Your task to perform on an android device: search for starred emails in the gmail app Image 0: 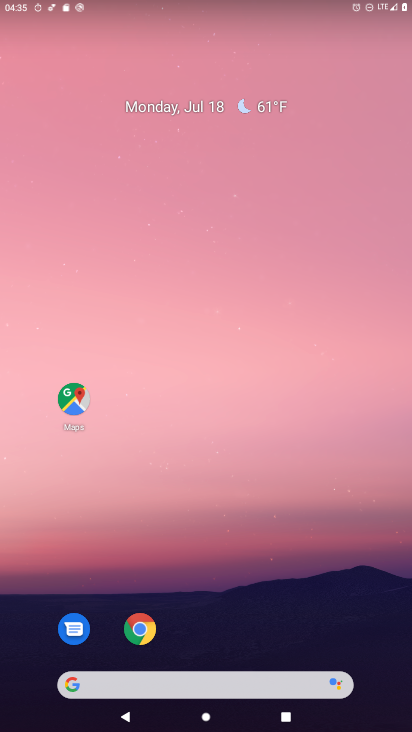
Step 0: press home button
Your task to perform on an android device: search for starred emails in the gmail app Image 1: 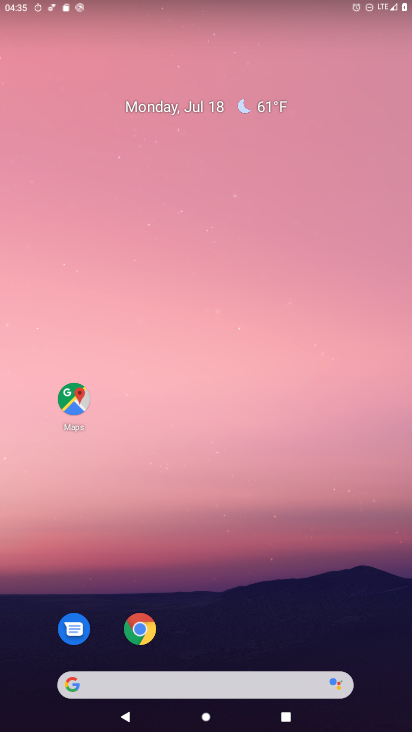
Step 1: drag from (194, 687) to (310, 175)
Your task to perform on an android device: search for starred emails in the gmail app Image 2: 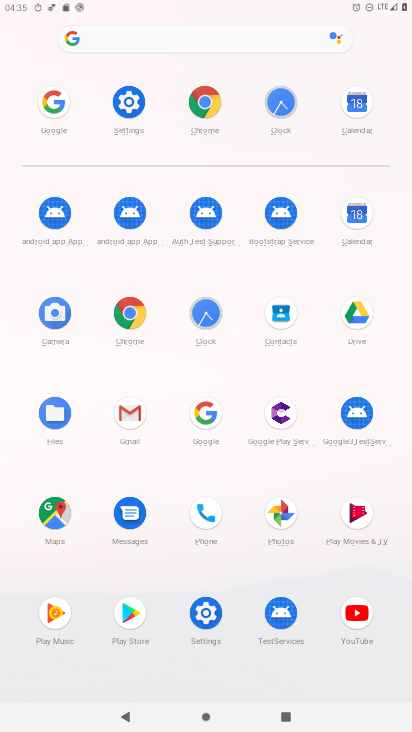
Step 2: click (129, 410)
Your task to perform on an android device: search for starred emails in the gmail app Image 3: 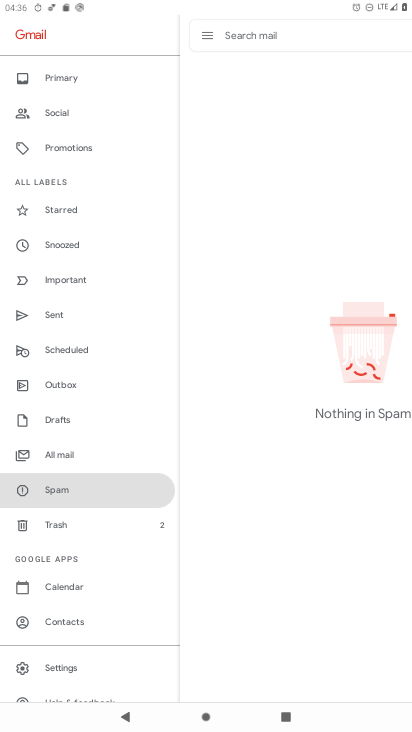
Step 3: click (61, 212)
Your task to perform on an android device: search for starred emails in the gmail app Image 4: 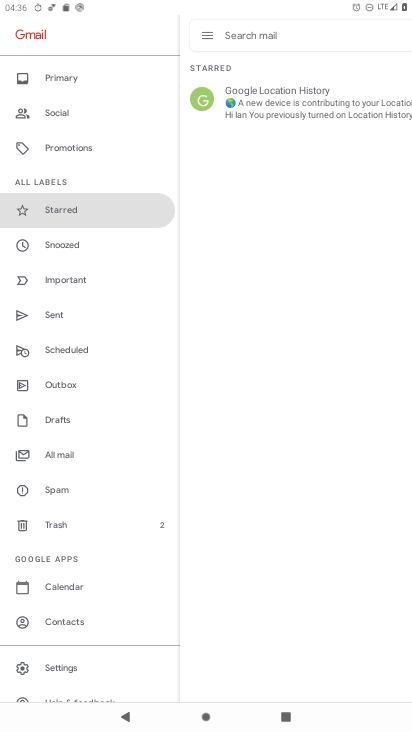
Step 4: click (284, 100)
Your task to perform on an android device: search for starred emails in the gmail app Image 5: 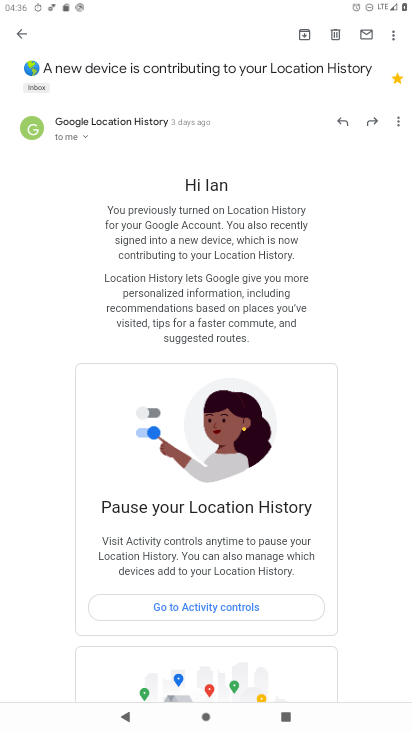
Step 5: task complete